Your task to perform on an android device: open chrome privacy settings Image 0: 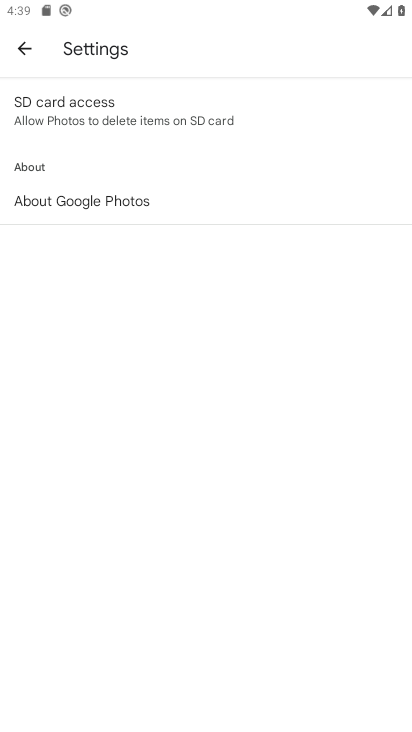
Step 0: press back button
Your task to perform on an android device: open chrome privacy settings Image 1: 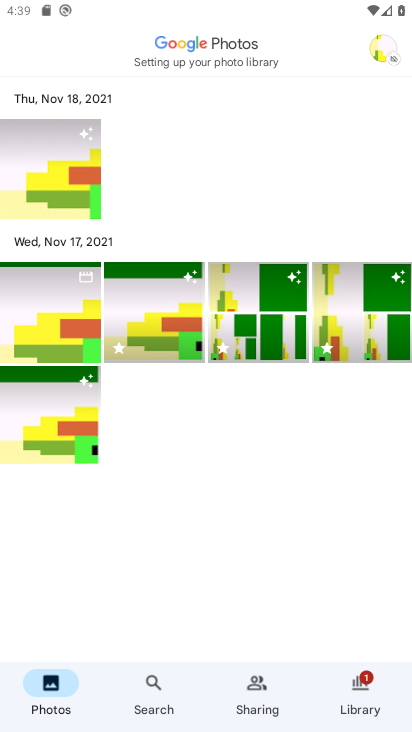
Step 1: press back button
Your task to perform on an android device: open chrome privacy settings Image 2: 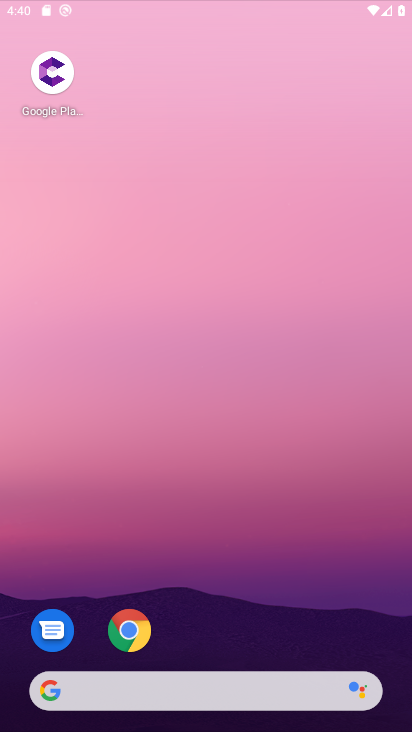
Step 2: press home button
Your task to perform on an android device: open chrome privacy settings Image 3: 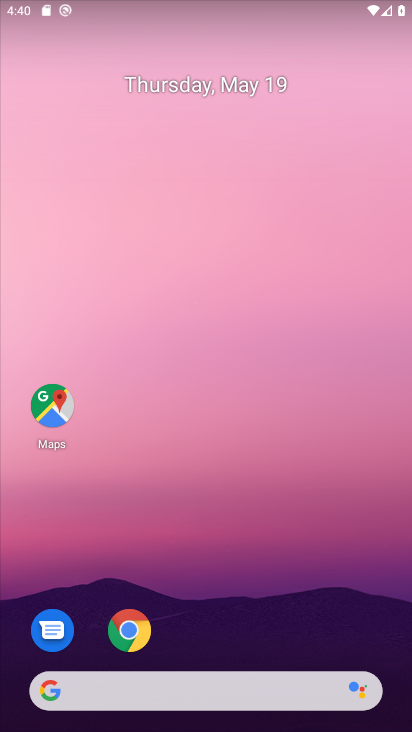
Step 3: drag from (281, 582) to (269, 11)
Your task to perform on an android device: open chrome privacy settings Image 4: 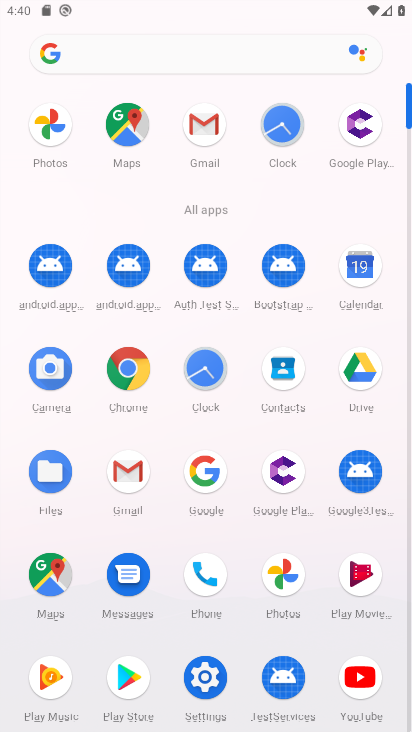
Step 4: click (123, 365)
Your task to perform on an android device: open chrome privacy settings Image 5: 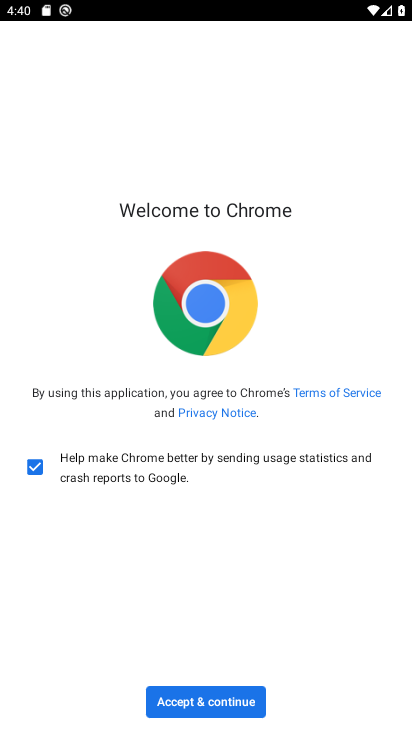
Step 5: click (205, 696)
Your task to perform on an android device: open chrome privacy settings Image 6: 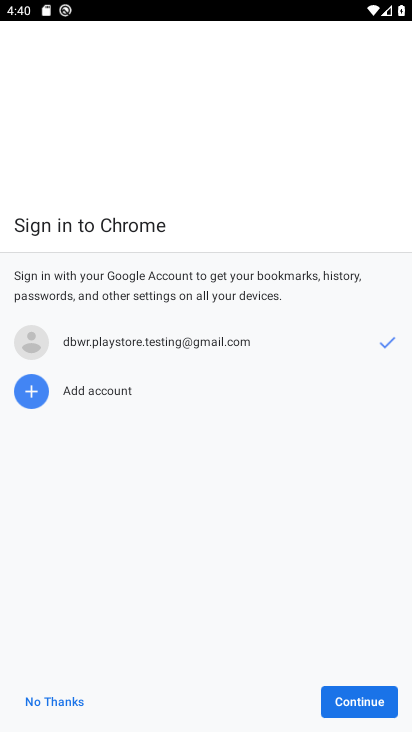
Step 6: click (334, 702)
Your task to perform on an android device: open chrome privacy settings Image 7: 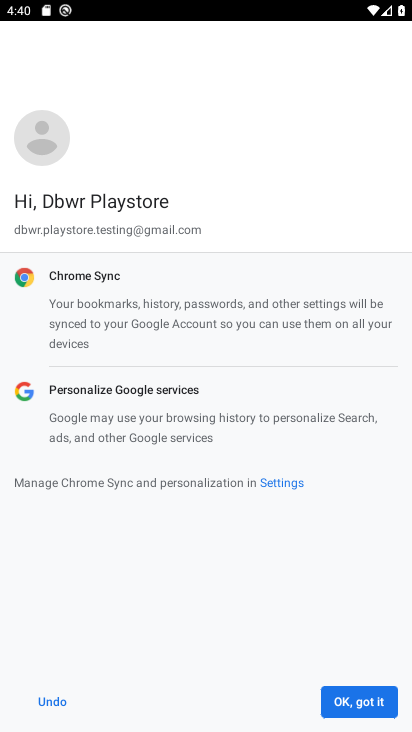
Step 7: click (344, 696)
Your task to perform on an android device: open chrome privacy settings Image 8: 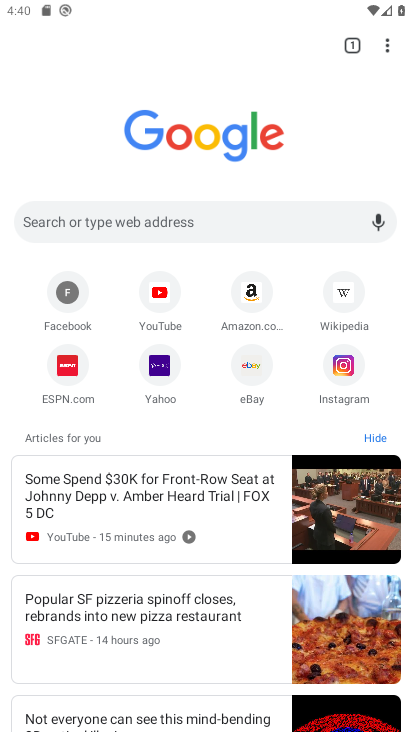
Step 8: drag from (382, 40) to (220, 374)
Your task to perform on an android device: open chrome privacy settings Image 9: 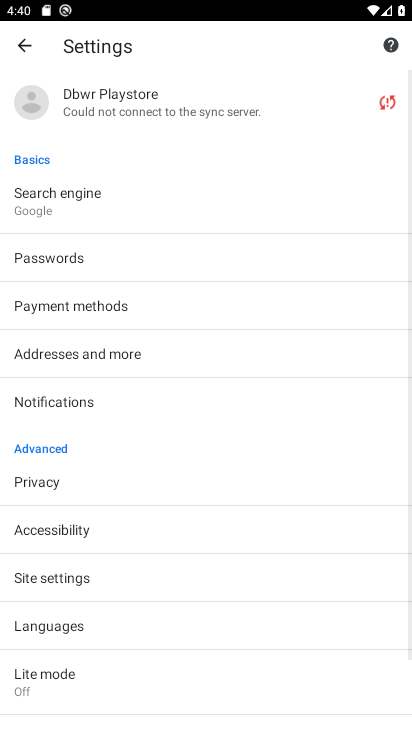
Step 9: click (68, 485)
Your task to perform on an android device: open chrome privacy settings Image 10: 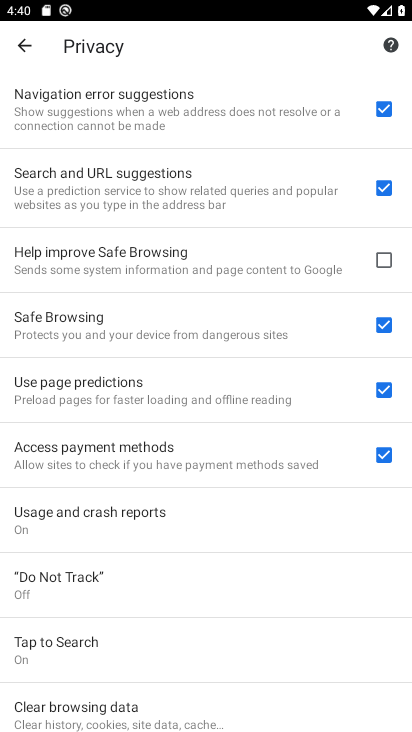
Step 10: task complete